Your task to perform on an android device: open device folders in google photos Image 0: 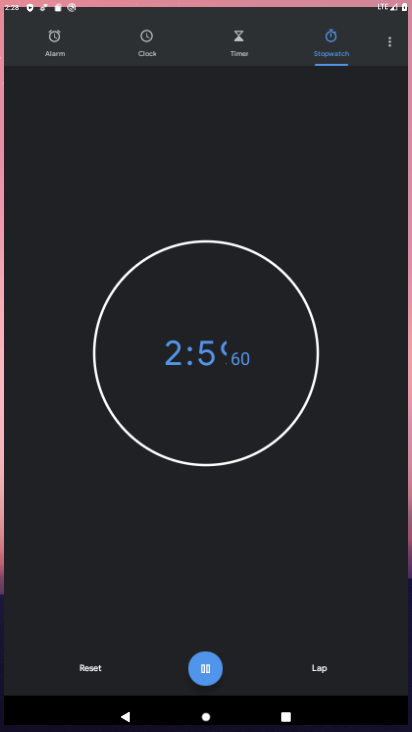
Step 0: drag from (197, 689) to (212, 255)
Your task to perform on an android device: open device folders in google photos Image 1: 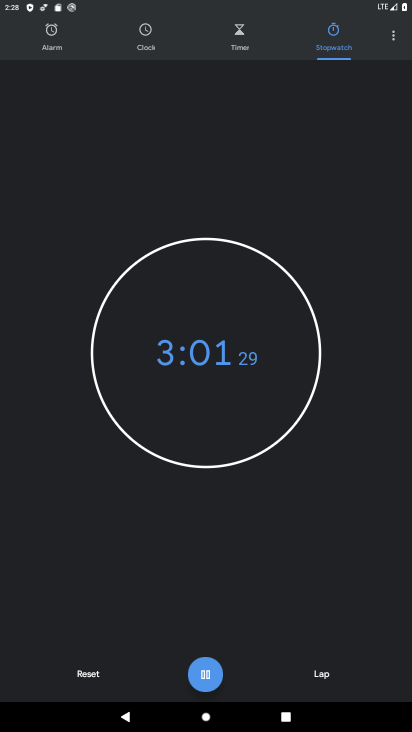
Step 1: press home button
Your task to perform on an android device: open device folders in google photos Image 2: 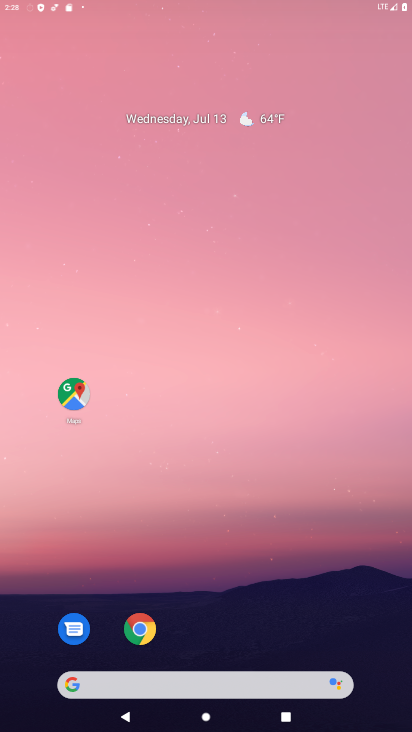
Step 2: drag from (291, 665) to (408, 705)
Your task to perform on an android device: open device folders in google photos Image 3: 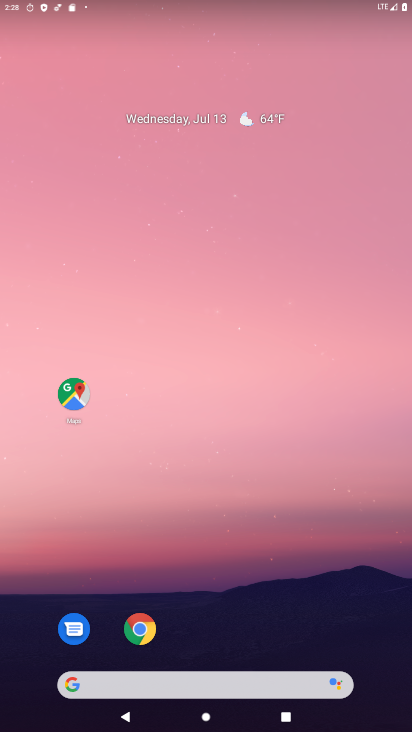
Step 3: click (281, 508)
Your task to perform on an android device: open device folders in google photos Image 4: 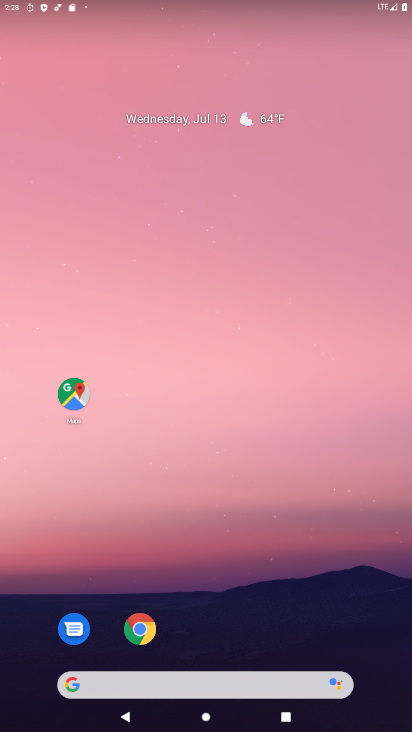
Step 4: drag from (336, 634) to (354, 53)
Your task to perform on an android device: open device folders in google photos Image 5: 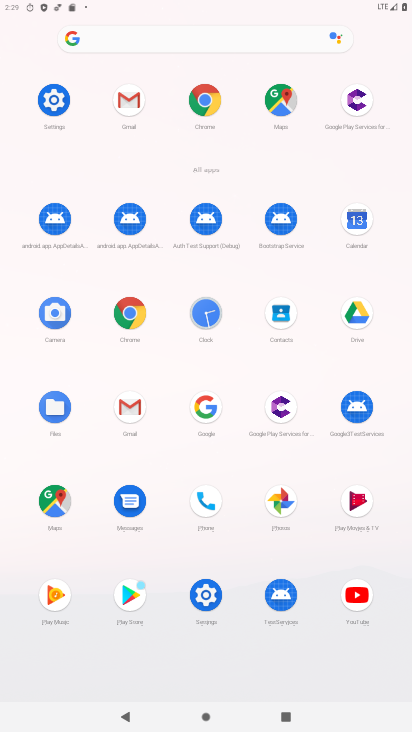
Step 5: click (281, 492)
Your task to perform on an android device: open device folders in google photos Image 6: 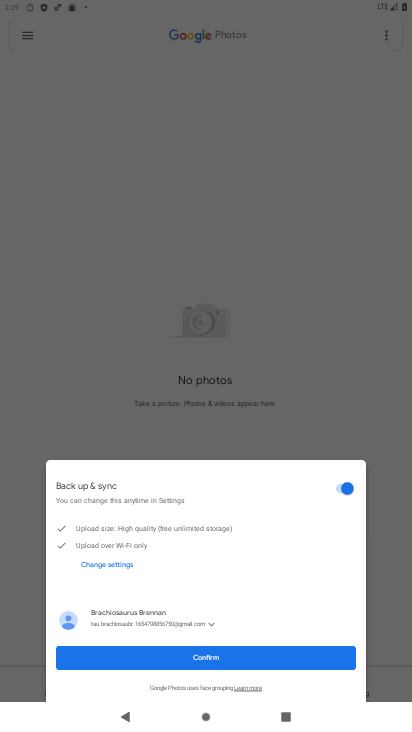
Step 6: click (256, 651)
Your task to perform on an android device: open device folders in google photos Image 7: 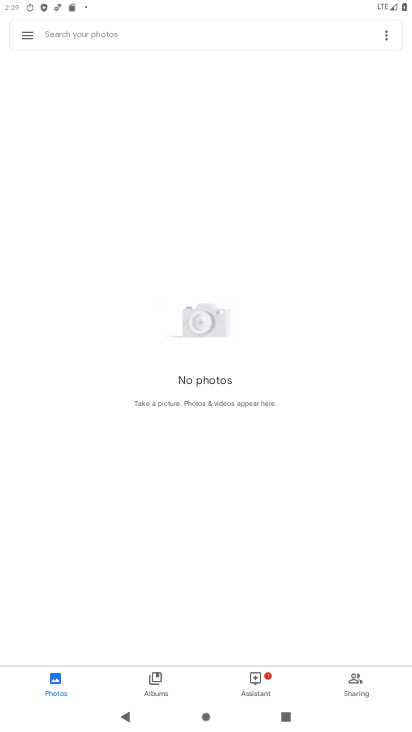
Step 7: click (34, 36)
Your task to perform on an android device: open device folders in google photos Image 8: 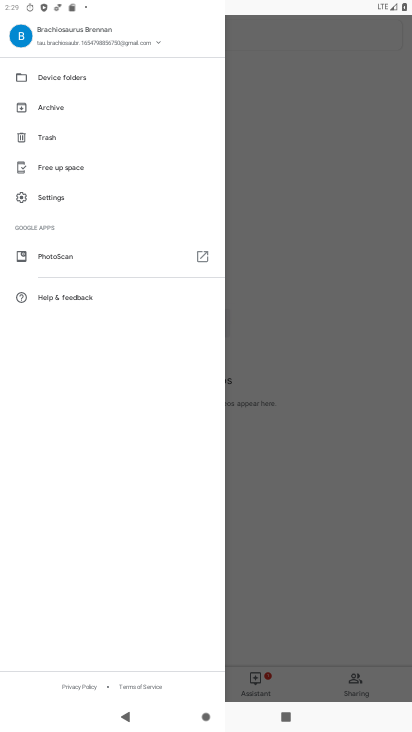
Step 8: click (55, 73)
Your task to perform on an android device: open device folders in google photos Image 9: 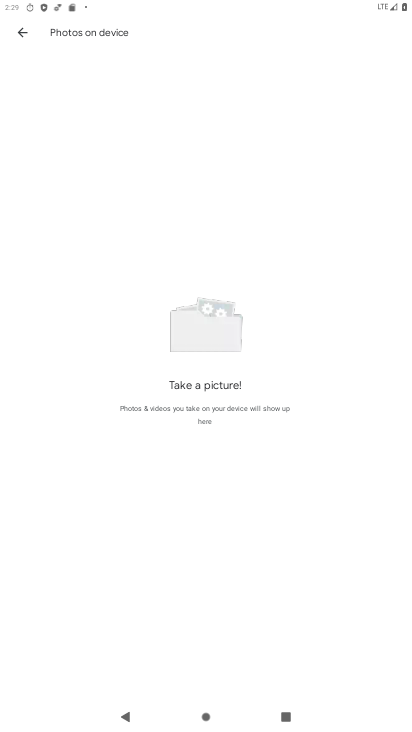
Step 9: task complete